Your task to perform on an android device: Open maps Image 0: 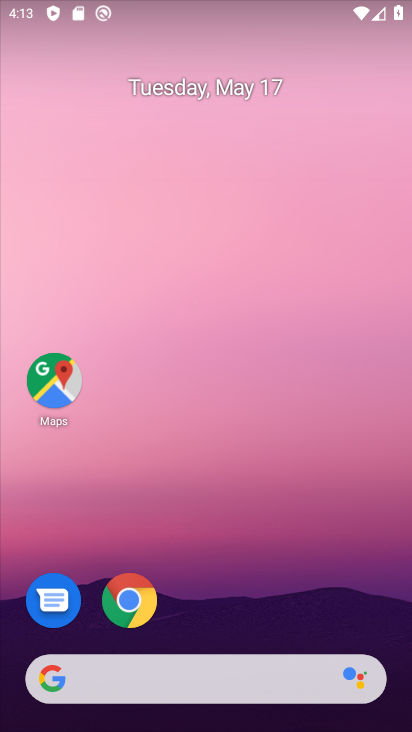
Step 0: click (53, 381)
Your task to perform on an android device: Open maps Image 1: 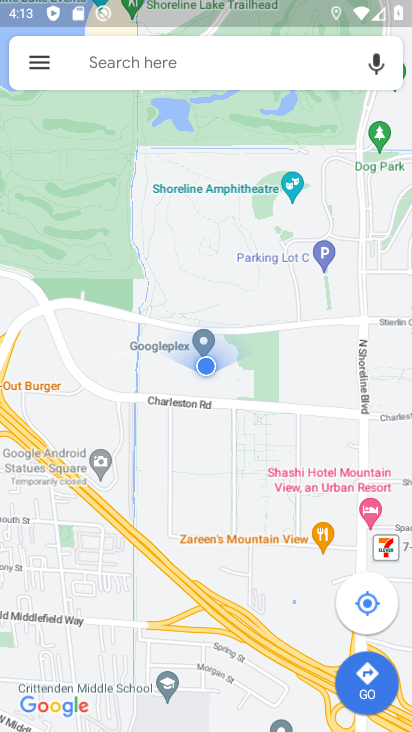
Step 1: task complete